Your task to perform on an android device: toggle show notifications on the lock screen Image 0: 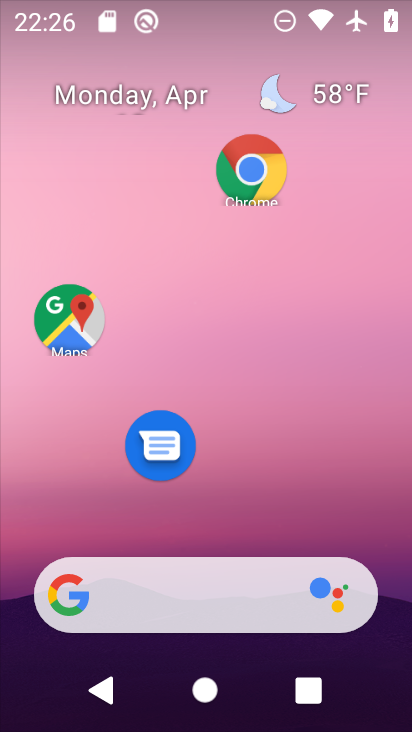
Step 0: drag from (205, 519) to (181, 89)
Your task to perform on an android device: toggle show notifications on the lock screen Image 1: 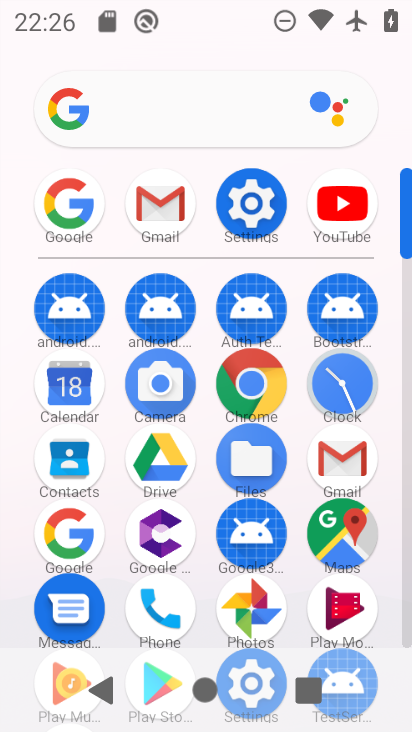
Step 1: click (241, 172)
Your task to perform on an android device: toggle show notifications on the lock screen Image 2: 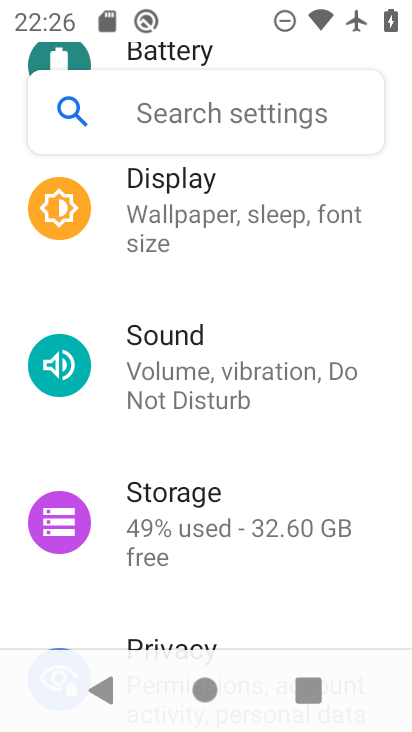
Step 2: drag from (224, 257) to (228, 473)
Your task to perform on an android device: toggle show notifications on the lock screen Image 3: 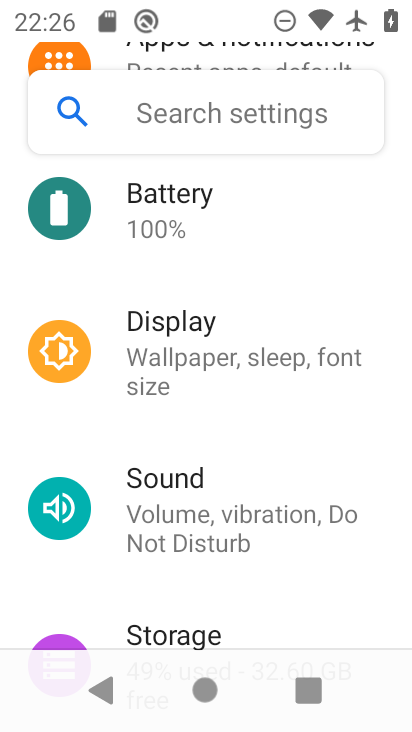
Step 3: drag from (235, 255) to (232, 474)
Your task to perform on an android device: toggle show notifications on the lock screen Image 4: 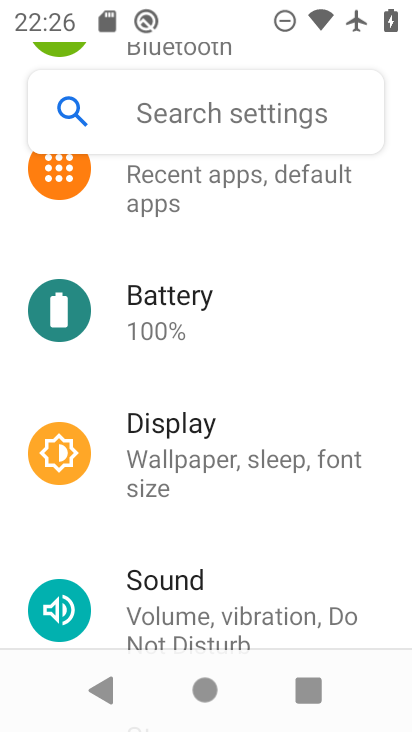
Step 4: drag from (228, 216) to (228, 390)
Your task to perform on an android device: toggle show notifications on the lock screen Image 5: 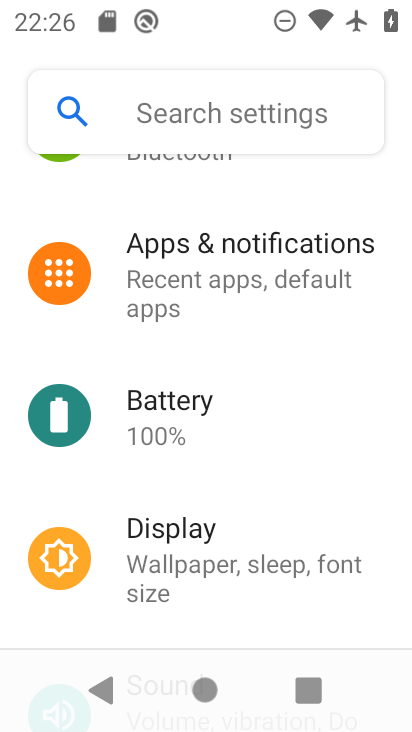
Step 5: click (211, 274)
Your task to perform on an android device: toggle show notifications on the lock screen Image 6: 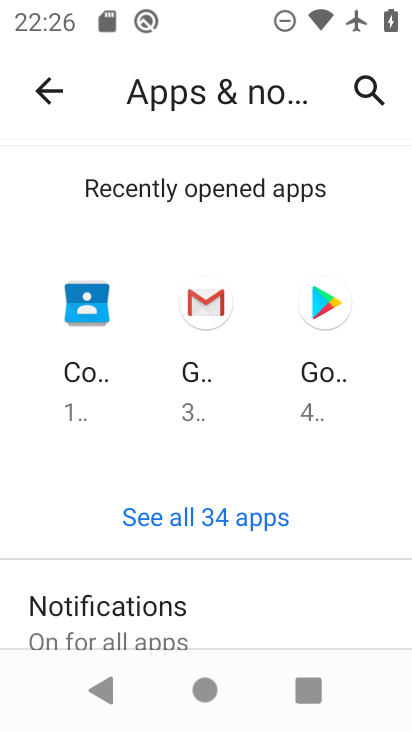
Step 6: drag from (247, 609) to (222, 311)
Your task to perform on an android device: toggle show notifications on the lock screen Image 7: 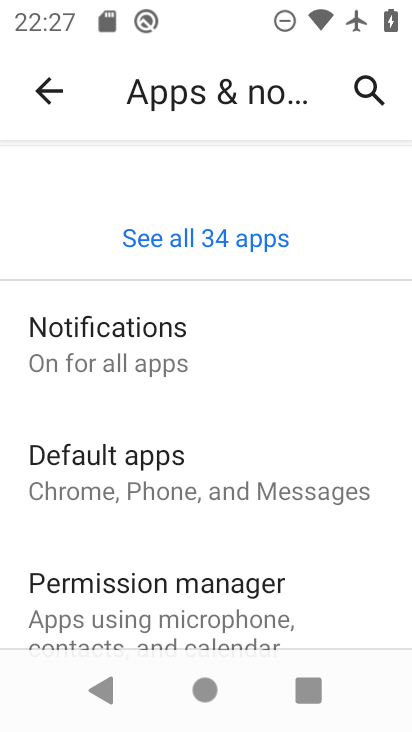
Step 7: drag from (186, 544) to (185, 273)
Your task to perform on an android device: toggle show notifications on the lock screen Image 8: 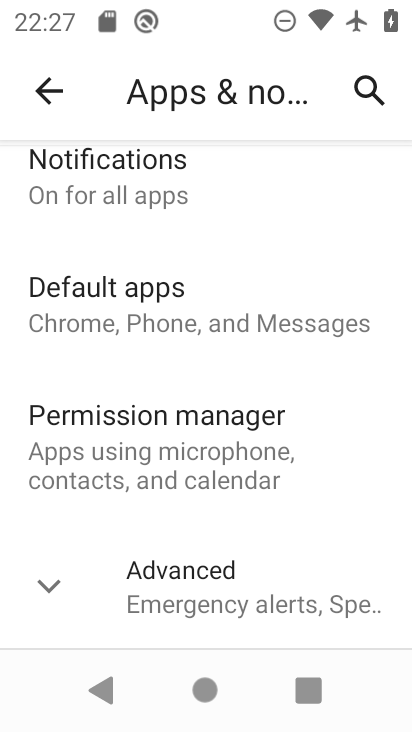
Step 8: click (133, 199)
Your task to perform on an android device: toggle show notifications on the lock screen Image 9: 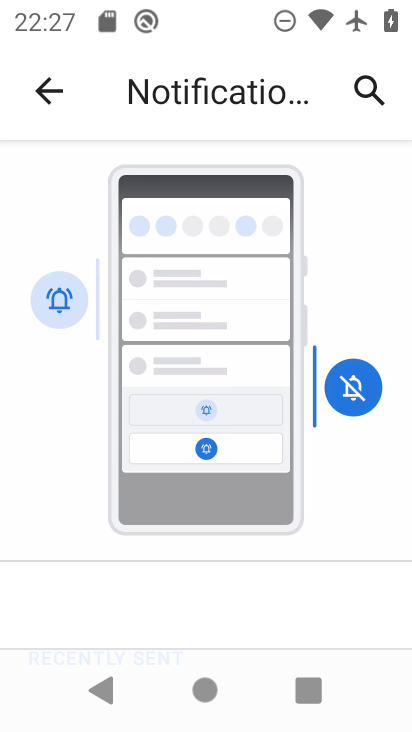
Step 9: drag from (263, 576) to (237, 159)
Your task to perform on an android device: toggle show notifications on the lock screen Image 10: 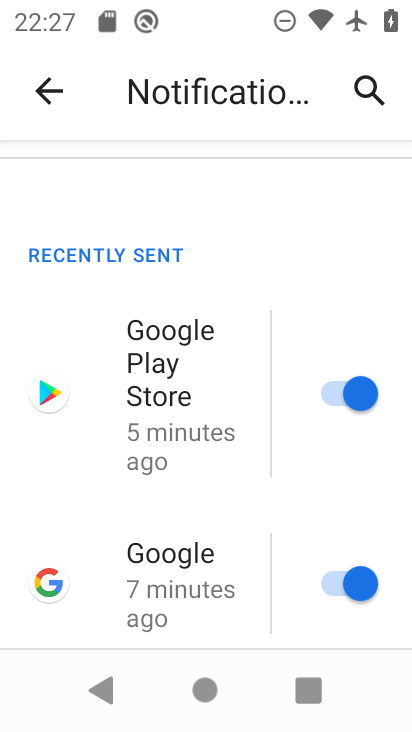
Step 10: drag from (241, 457) to (231, 209)
Your task to perform on an android device: toggle show notifications on the lock screen Image 11: 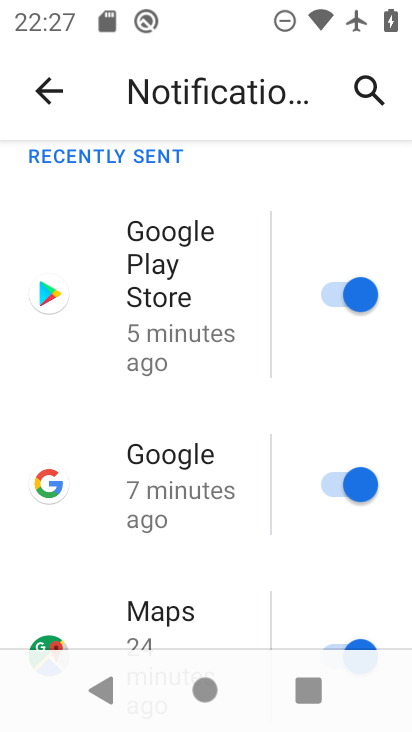
Step 11: drag from (218, 607) to (201, 204)
Your task to perform on an android device: toggle show notifications on the lock screen Image 12: 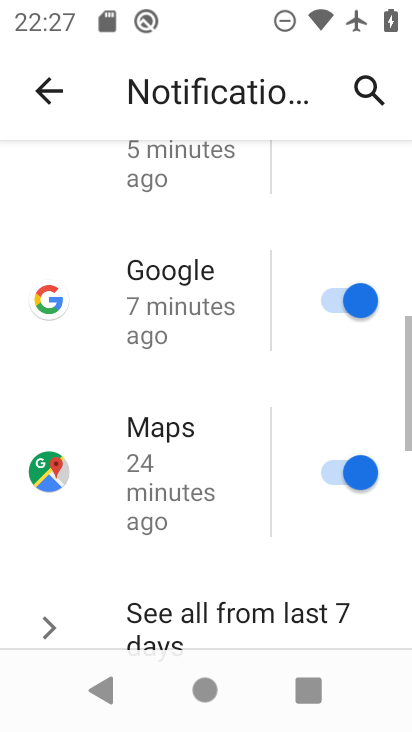
Step 12: drag from (242, 534) to (214, 217)
Your task to perform on an android device: toggle show notifications on the lock screen Image 13: 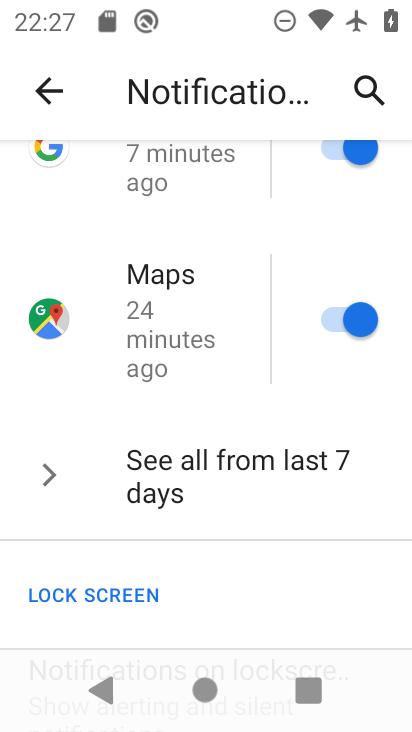
Step 13: drag from (222, 513) to (225, 253)
Your task to perform on an android device: toggle show notifications on the lock screen Image 14: 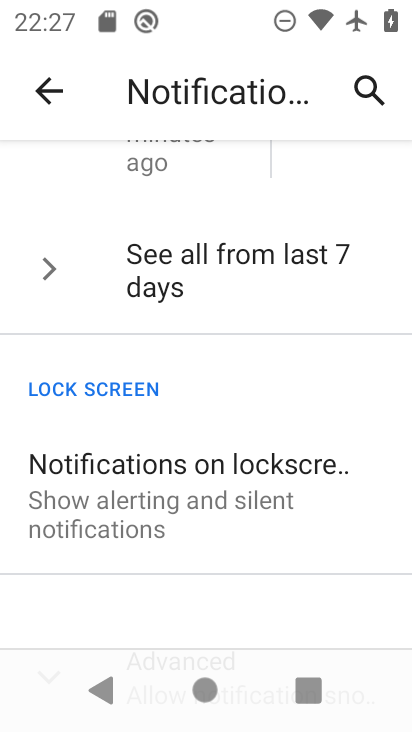
Step 14: drag from (225, 519) to (202, 308)
Your task to perform on an android device: toggle show notifications on the lock screen Image 15: 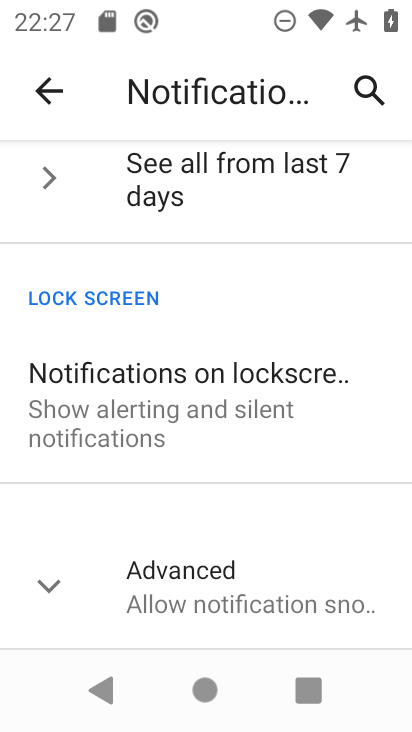
Step 15: click (209, 406)
Your task to perform on an android device: toggle show notifications on the lock screen Image 16: 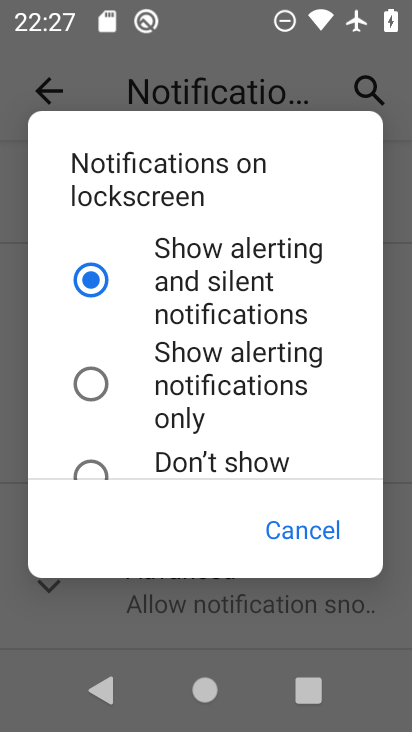
Step 16: drag from (211, 408) to (213, 298)
Your task to perform on an android device: toggle show notifications on the lock screen Image 17: 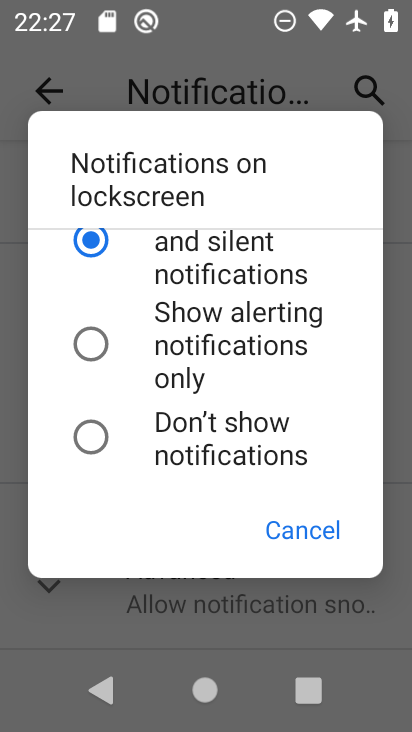
Step 17: click (172, 440)
Your task to perform on an android device: toggle show notifications on the lock screen Image 18: 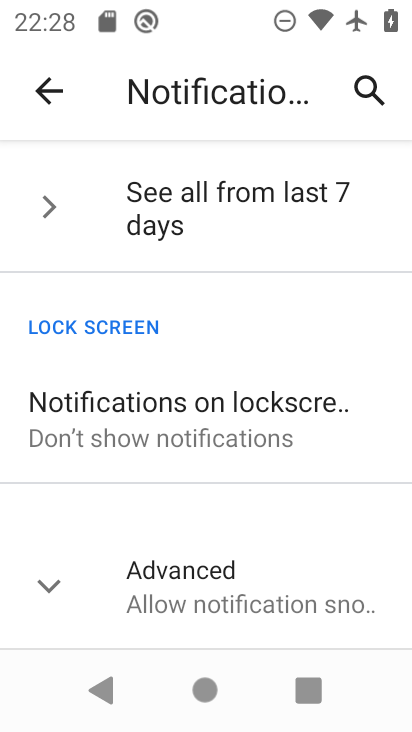
Step 18: task complete